Your task to perform on an android device: Do I have any events today? Image 0: 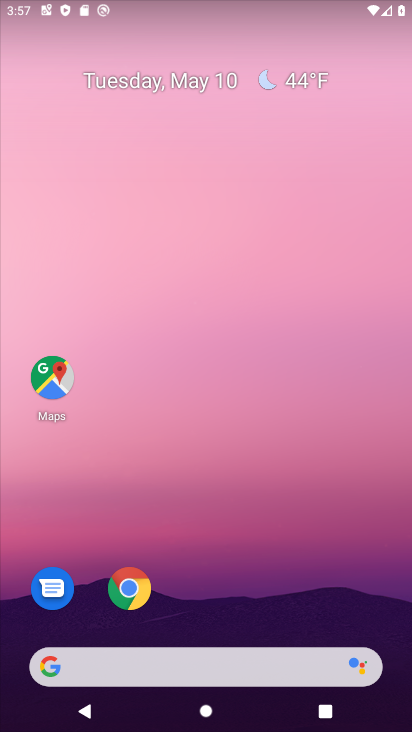
Step 0: drag from (315, 600) to (266, 86)
Your task to perform on an android device: Do I have any events today? Image 1: 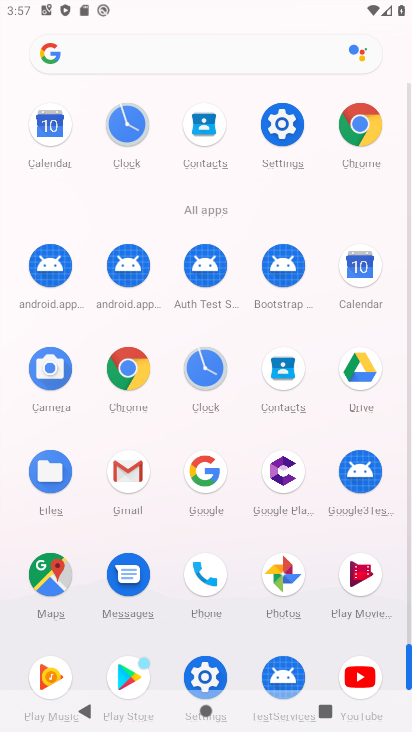
Step 1: click (360, 265)
Your task to perform on an android device: Do I have any events today? Image 2: 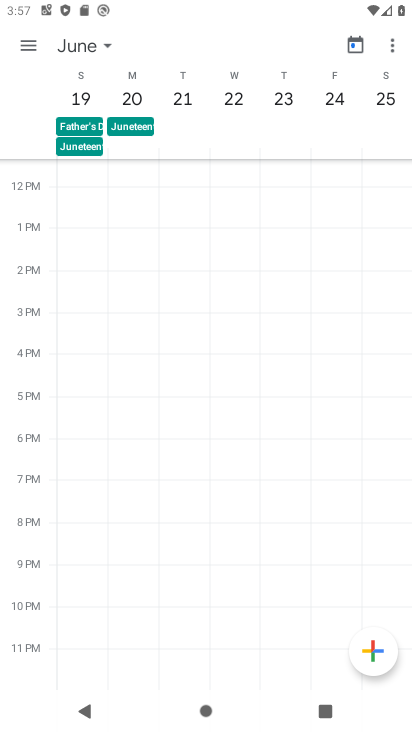
Step 2: click (36, 43)
Your task to perform on an android device: Do I have any events today? Image 3: 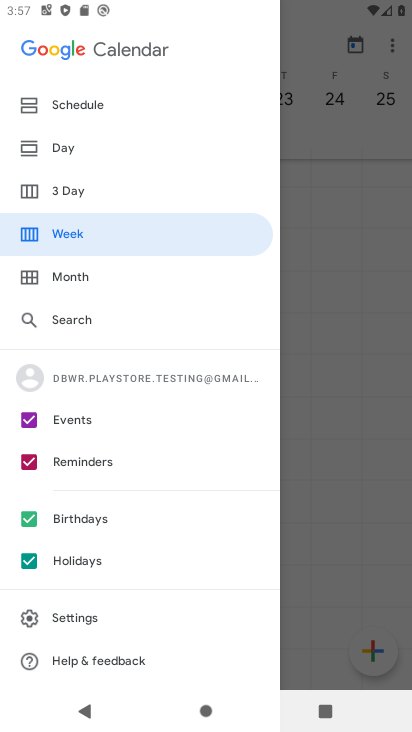
Step 3: click (55, 147)
Your task to perform on an android device: Do I have any events today? Image 4: 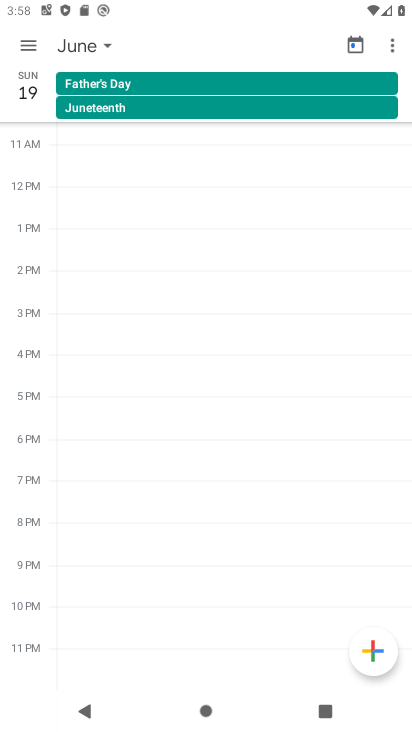
Step 4: click (93, 48)
Your task to perform on an android device: Do I have any events today? Image 5: 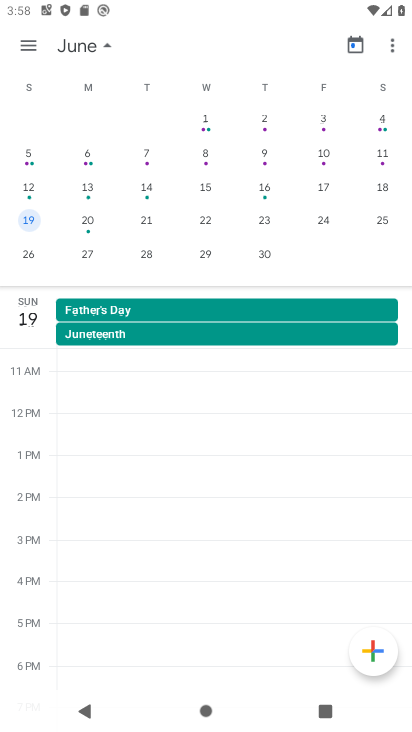
Step 5: drag from (81, 191) to (410, 159)
Your task to perform on an android device: Do I have any events today? Image 6: 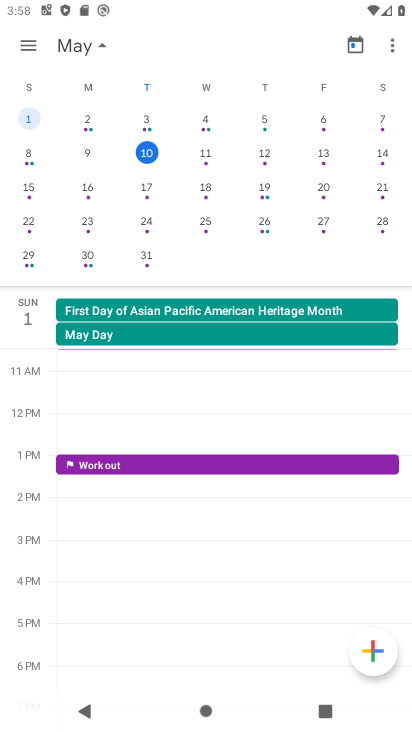
Step 6: click (153, 160)
Your task to perform on an android device: Do I have any events today? Image 7: 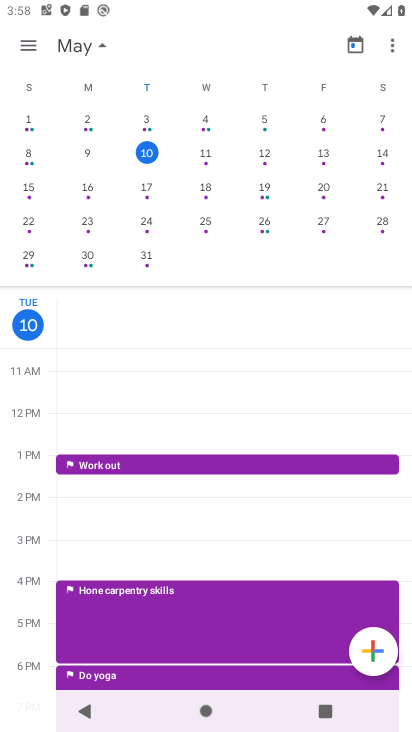
Step 7: task complete